Your task to perform on an android device: find which apps use the phone's location Image 0: 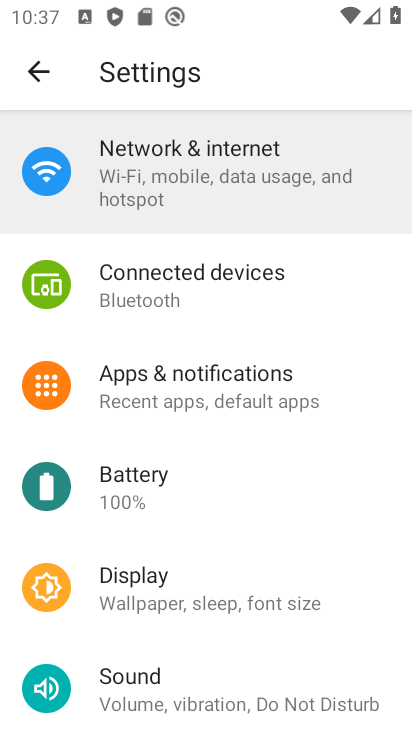
Step 0: drag from (277, 513) to (265, 51)
Your task to perform on an android device: find which apps use the phone's location Image 1: 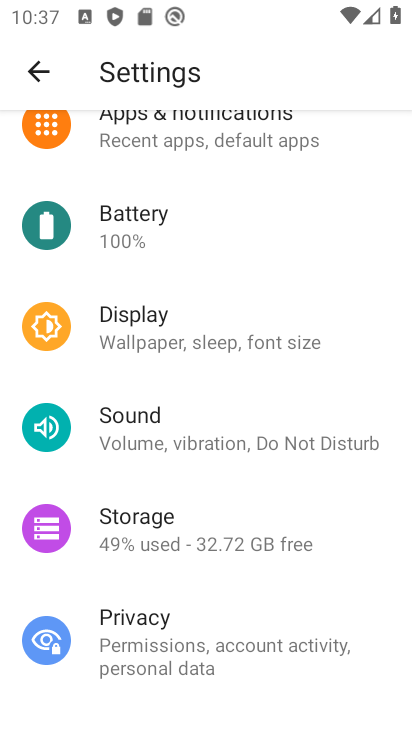
Step 1: drag from (286, 560) to (319, 168)
Your task to perform on an android device: find which apps use the phone's location Image 2: 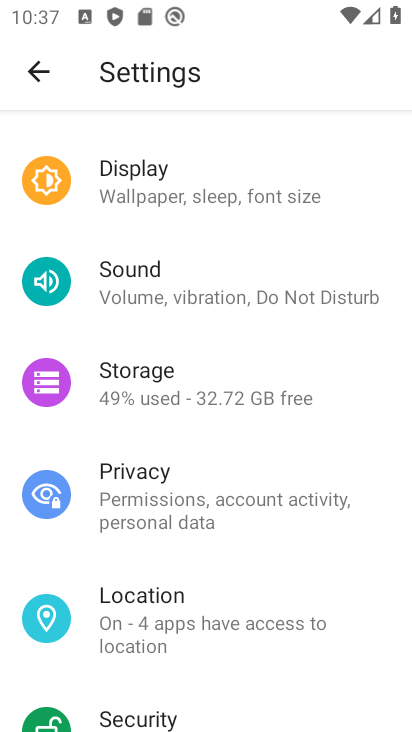
Step 2: click (224, 623)
Your task to perform on an android device: find which apps use the phone's location Image 3: 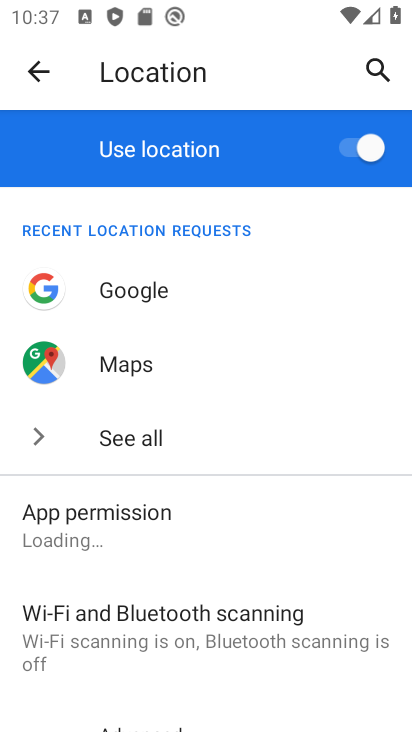
Step 3: task complete